Your task to perform on an android device: open the mobile data screen to see how much data has been used Image 0: 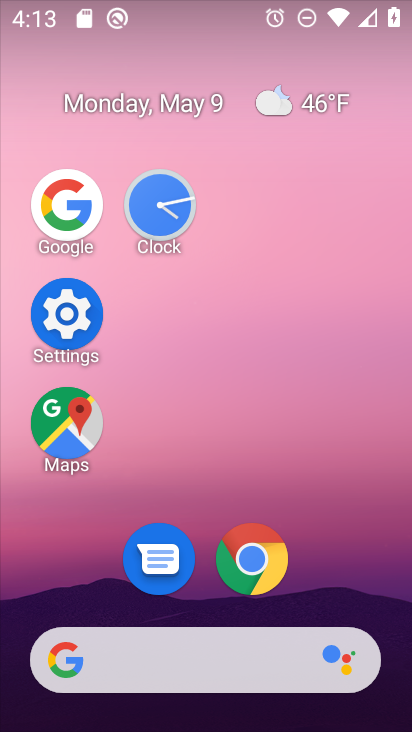
Step 0: click (55, 318)
Your task to perform on an android device: open the mobile data screen to see how much data has been used Image 1: 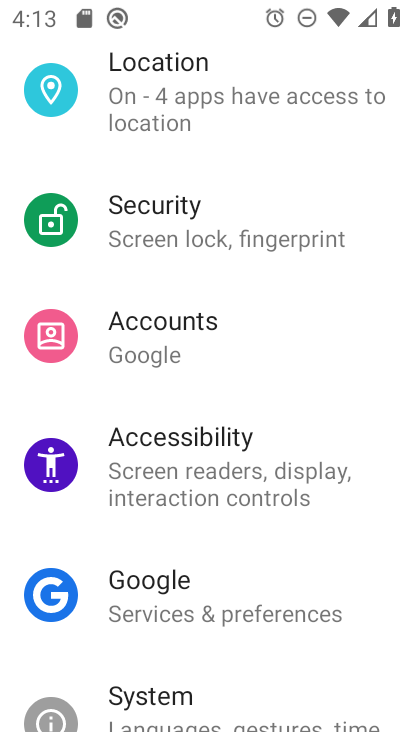
Step 1: drag from (342, 174) to (307, 567)
Your task to perform on an android device: open the mobile data screen to see how much data has been used Image 2: 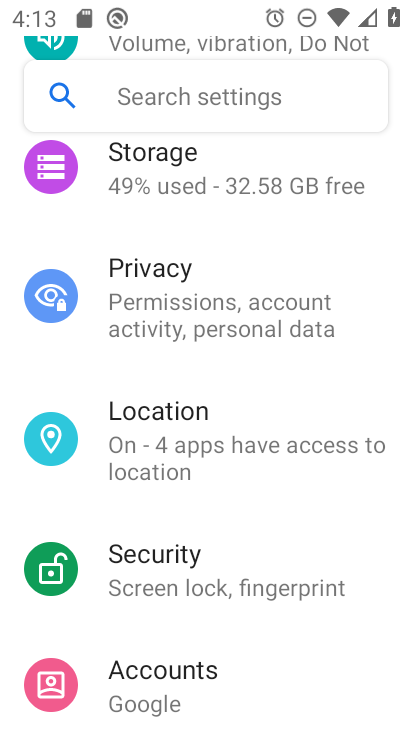
Step 2: drag from (240, 207) to (263, 538)
Your task to perform on an android device: open the mobile data screen to see how much data has been used Image 3: 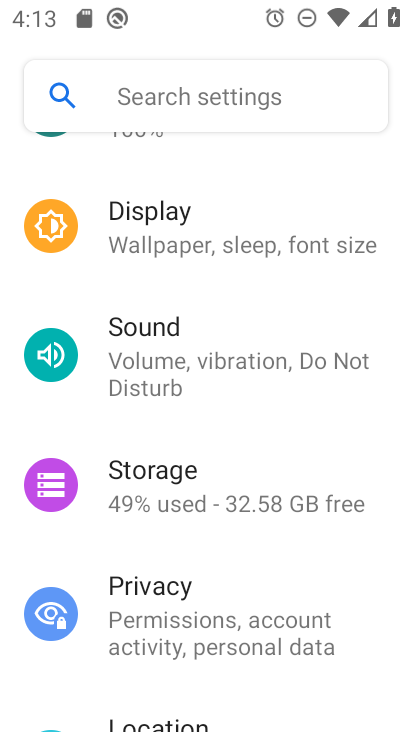
Step 3: drag from (260, 193) to (278, 489)
Your task to perform on an android device: open the mobile data screen to see how much data has been used Image 4: 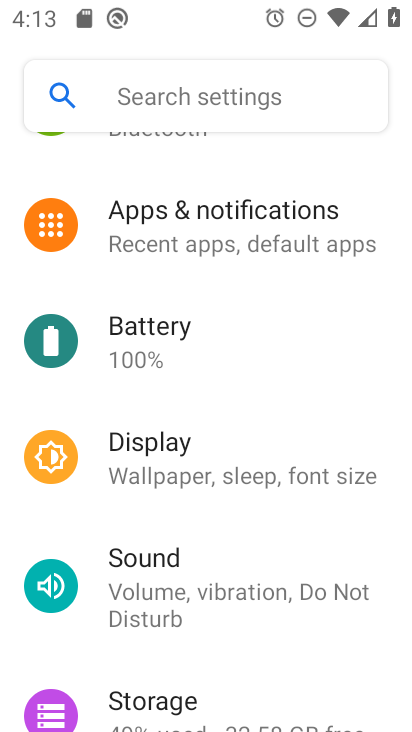
Step 4: drag from (230, 238) to (240, 515)
Your task to perform on an android device: open the mobile data screen to see how much data has been used Image 5: 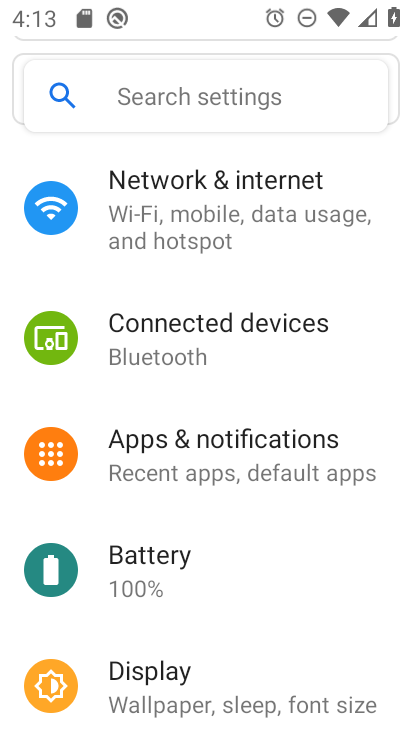
Step 5: click (218, 199)
Your task to perform on an android device: open the mobile data screen to see how much data has been used Image 6: 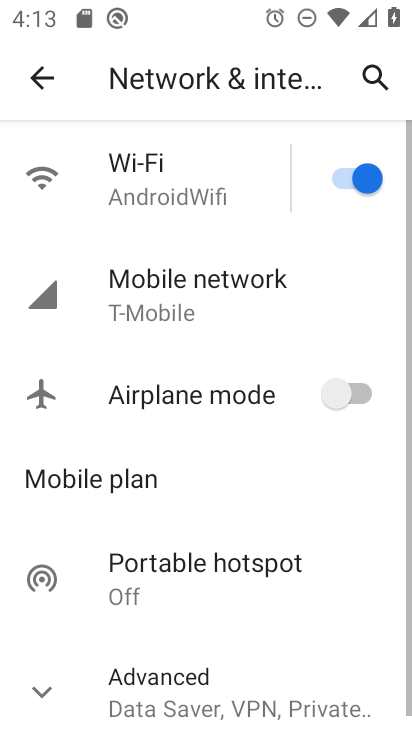
Step 6: click (224, 307)
Your task to perform on an android device: open the mobile data screen to see how much data has been used Image 7: 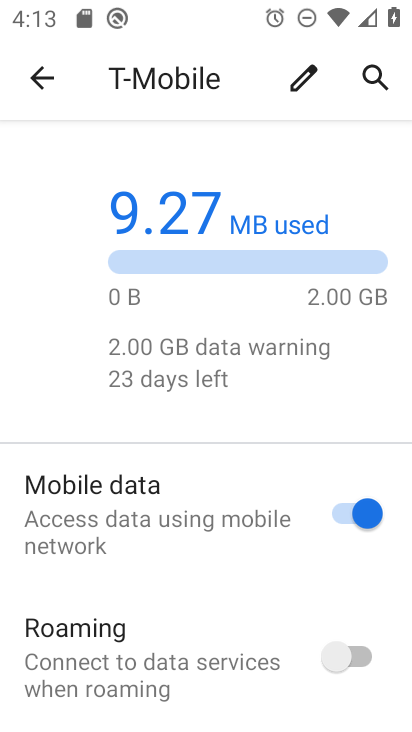
Step 7: task complete